Your task to perform on an android device: turn notification dots off Image 0: 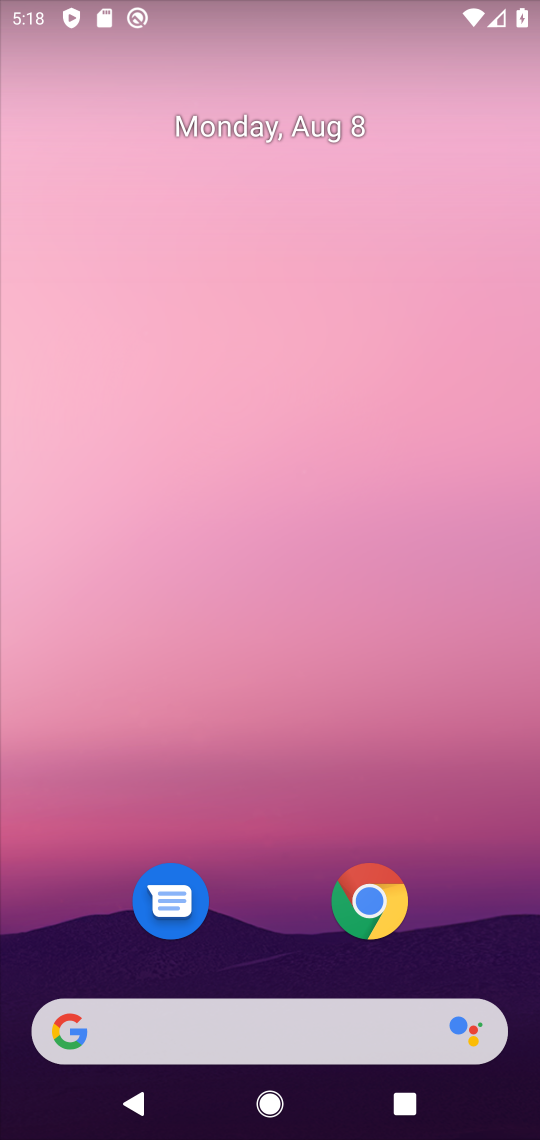
Step 0: drag from (495, 937) to (374, 173)
Your task to perform on an android device: turn notification dots off Image 1: 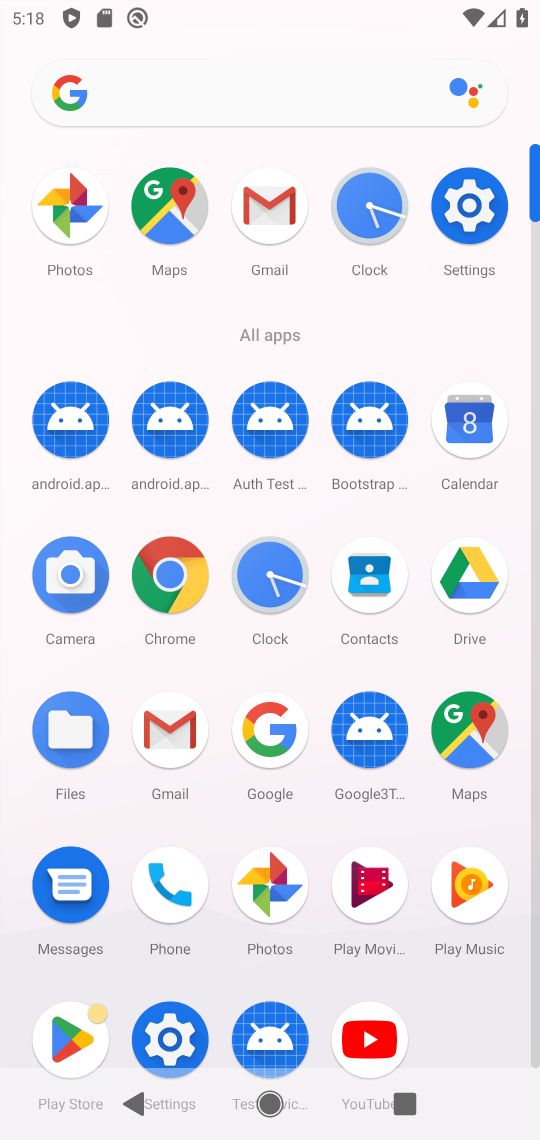
Step 1: click (467, 203)
Your task to perform on an android device: turn notification dots off Image 2: 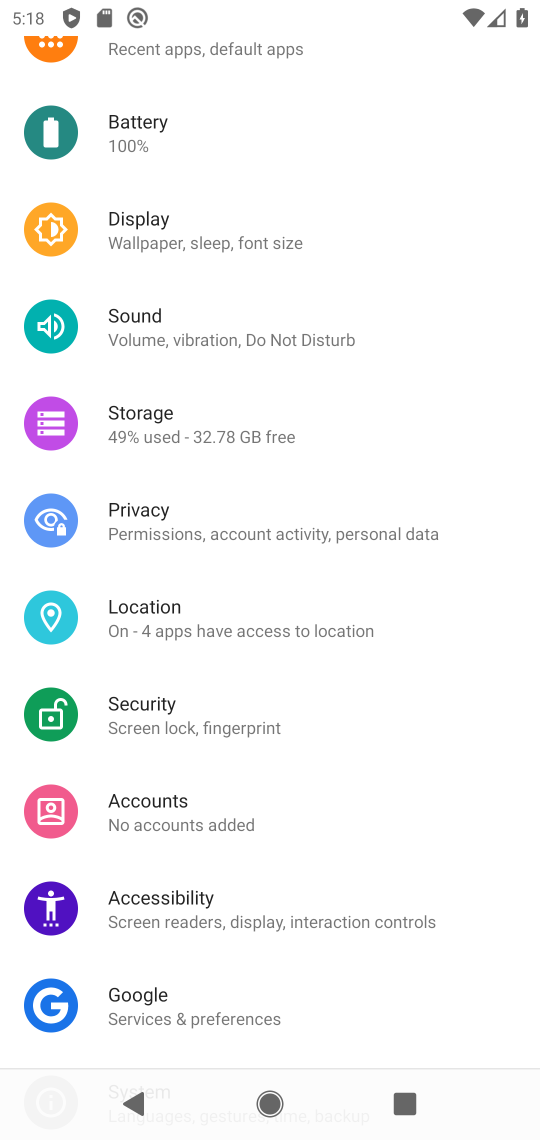
Step 2: drag from (327, 852) to (340, 1104)
Your task to perform on an android device: turn notification dots off Image 3: 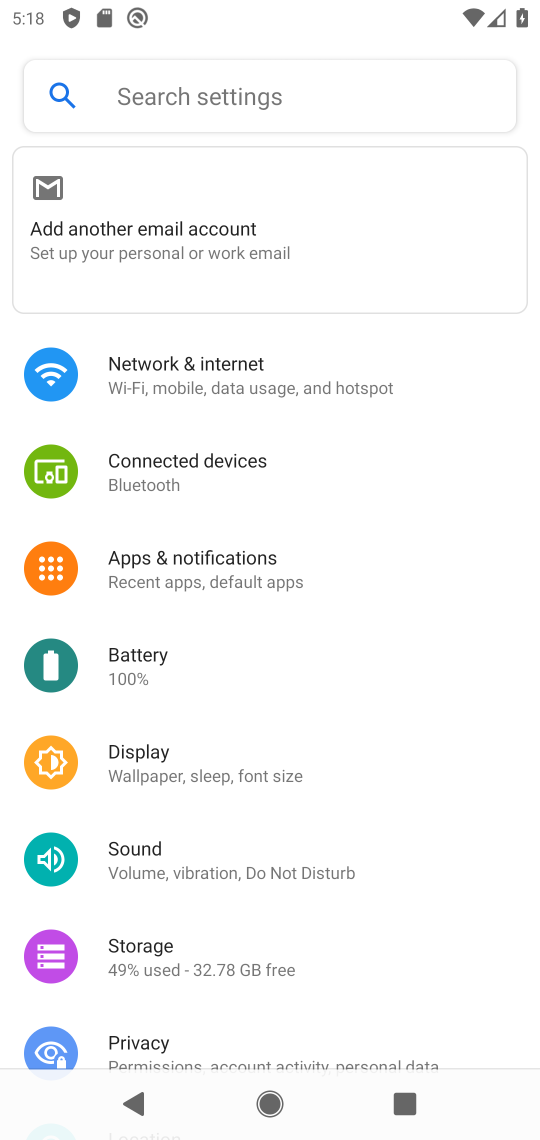
Step 3: click (271, 564)
Your task to perform on an android device: turn notification dots off Image 4: 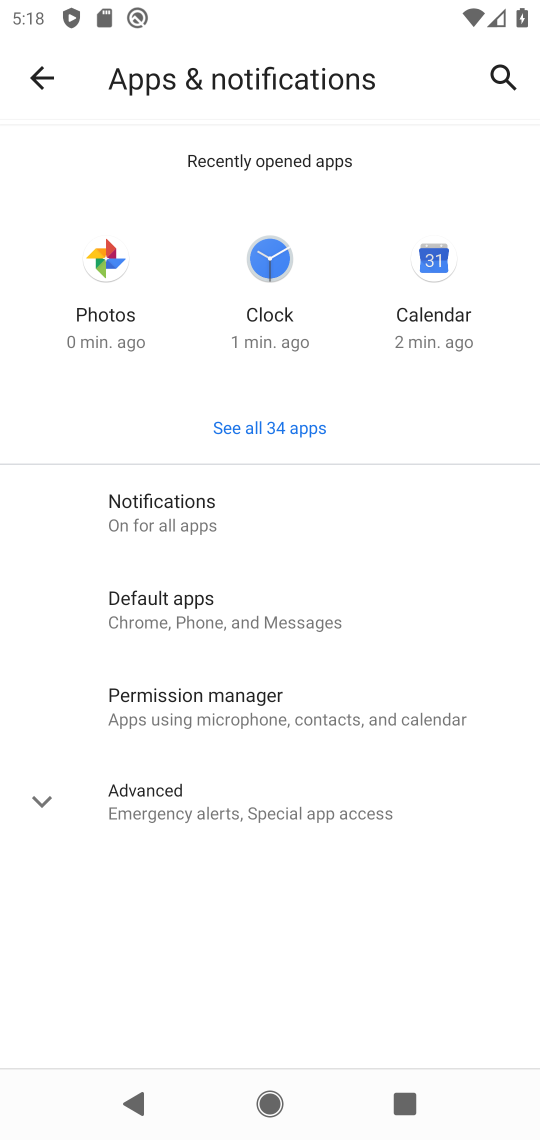
Step 4: click (259, 520)
Your task to perform on an android device: turn notification dots off Image 5: 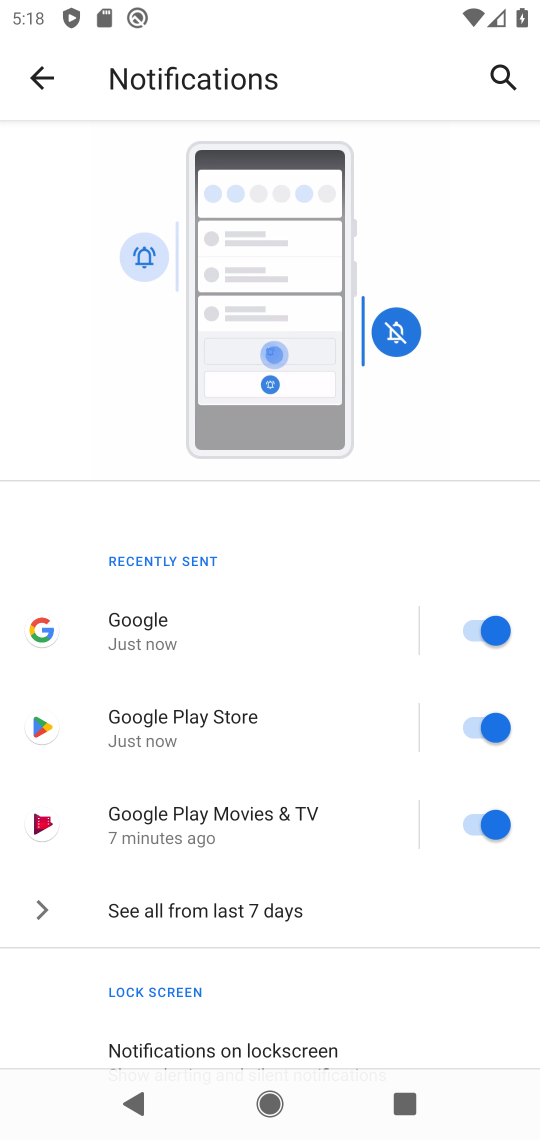
Step 5: drag from (336, 971) to (334, 130)
Your task to perform on an android device: turn notification dots off Image 6: 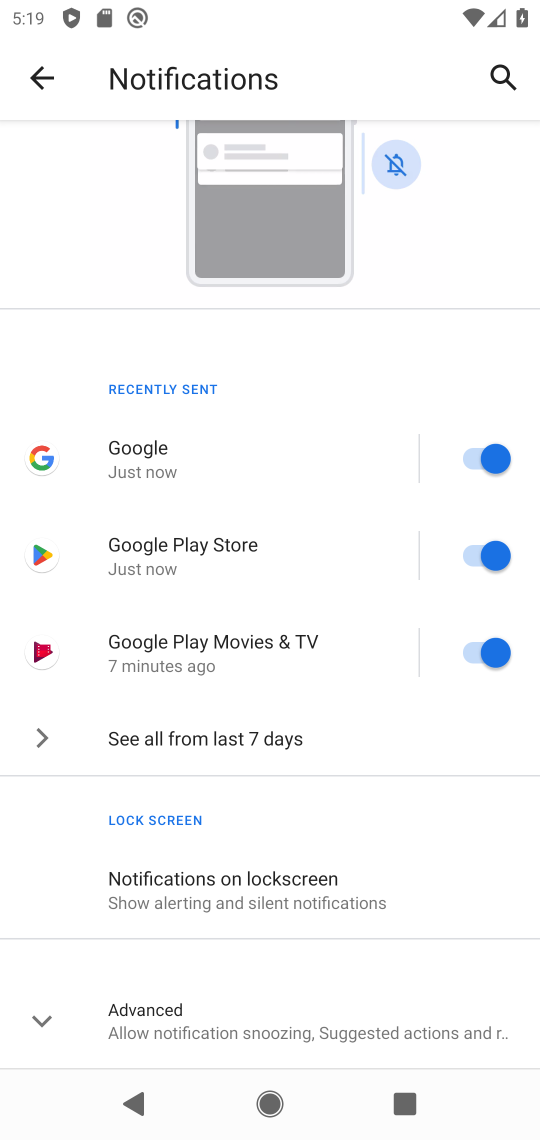
Step 6: click (341, 1015)
Your task to perform on an android device: turn notification dots off Image 7: 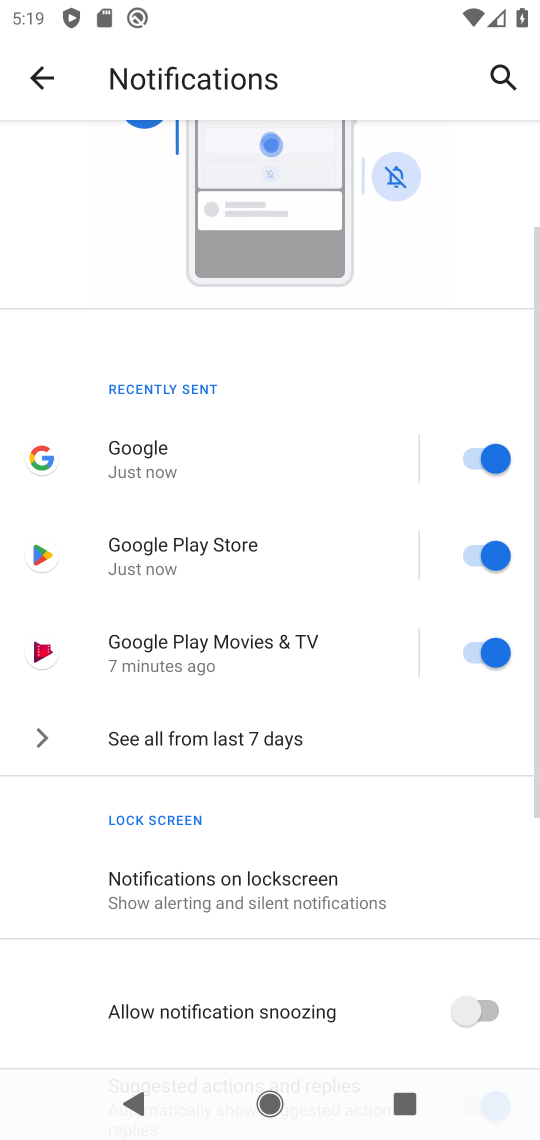
Step 7: drag from (381, 1032) to (346, 173)
Your task to perform on an android device: turn notification dots off Image 8: 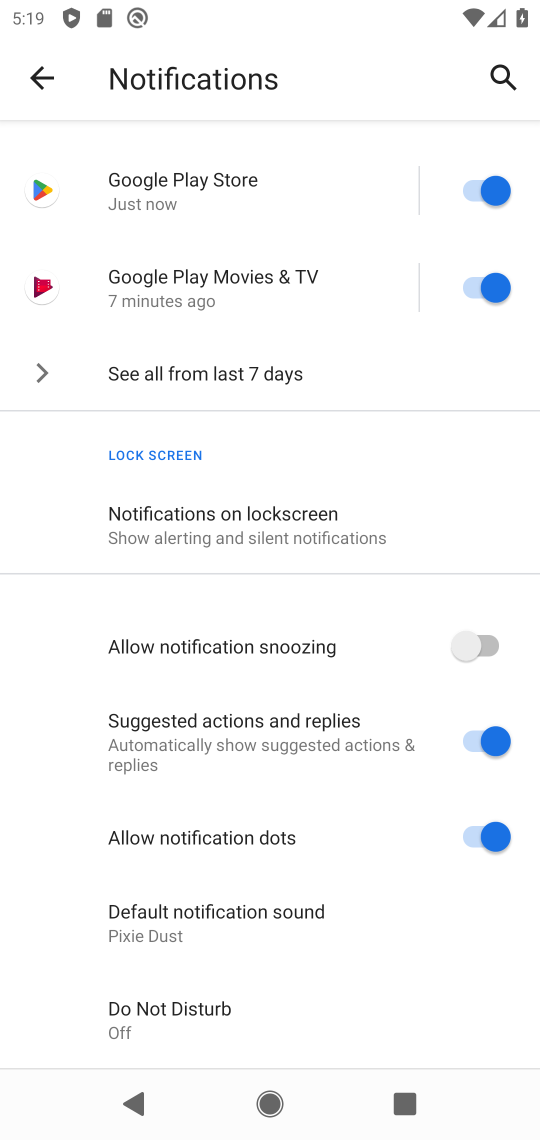
Step 8: click (480, 839)
Your task to perform on an android device: turn notification dots off Image 9: 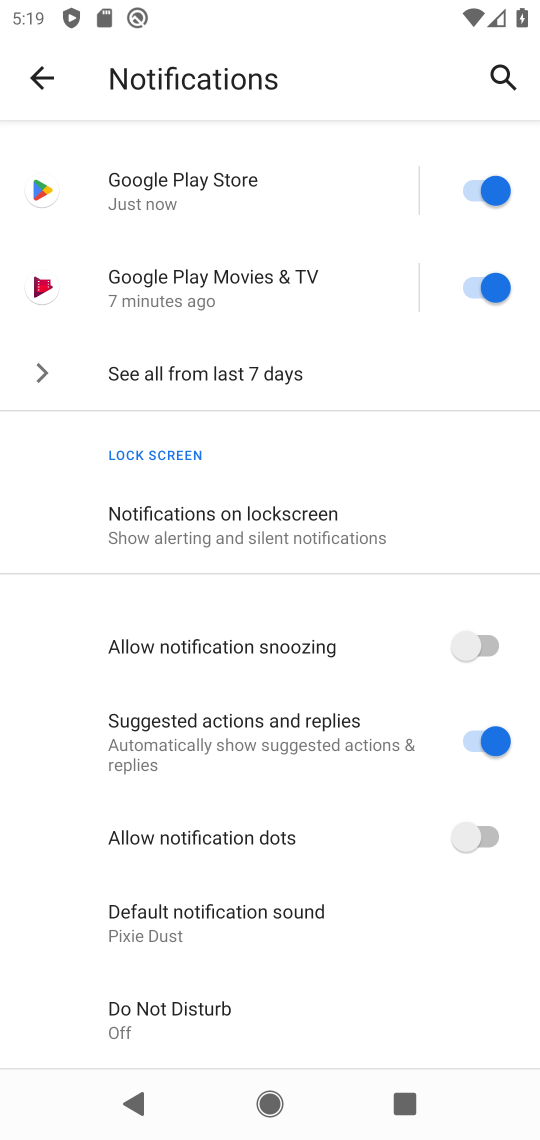
Step 9: task complete